Your task to perform on an android device: Open the files app Image 0: 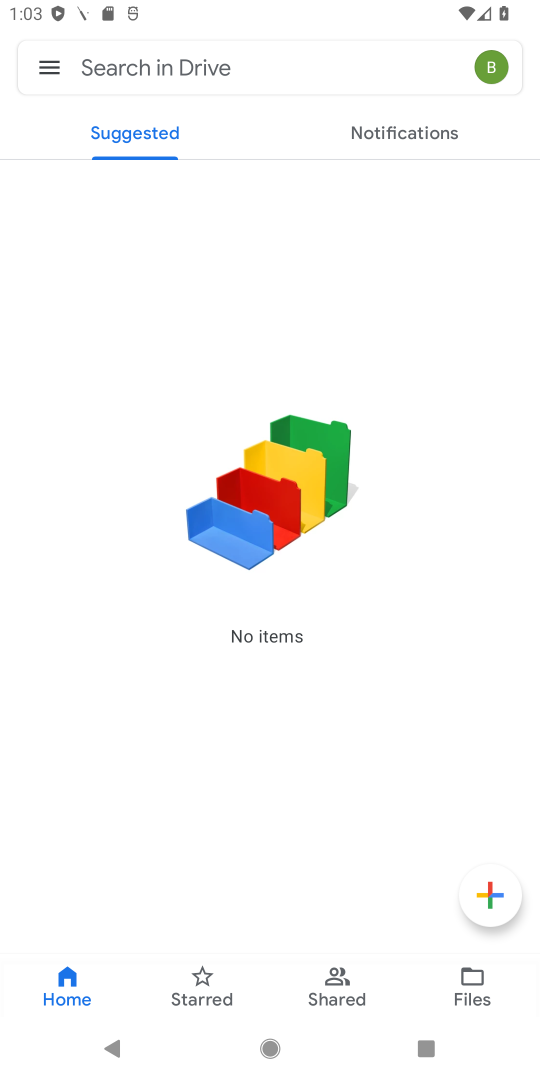
Step 0: press home button
Your task to perform on an android device: Open the files app Image 1: 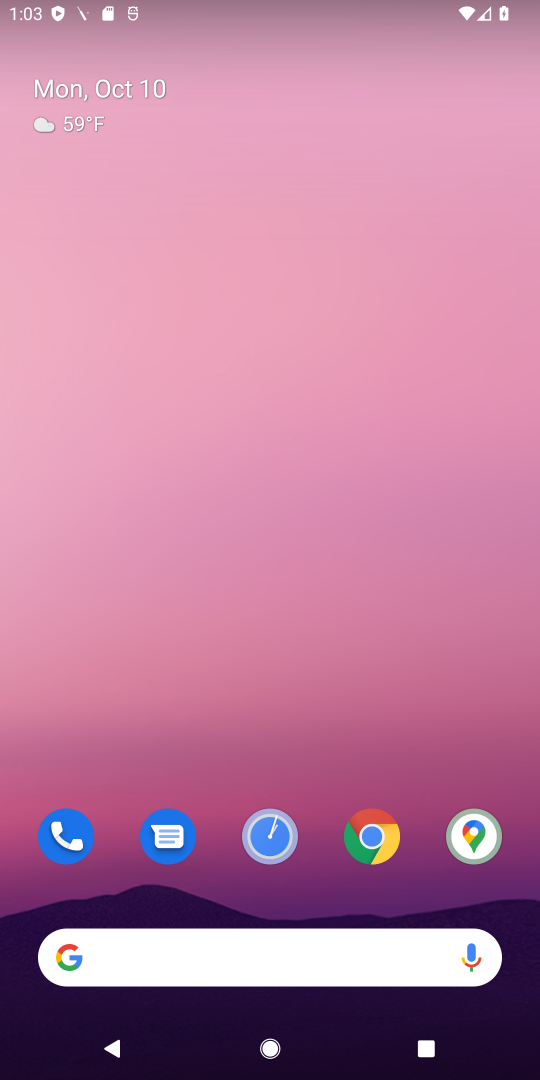
Step 1: press home button
Your task to perform on an android device: Open the files app Image 2: 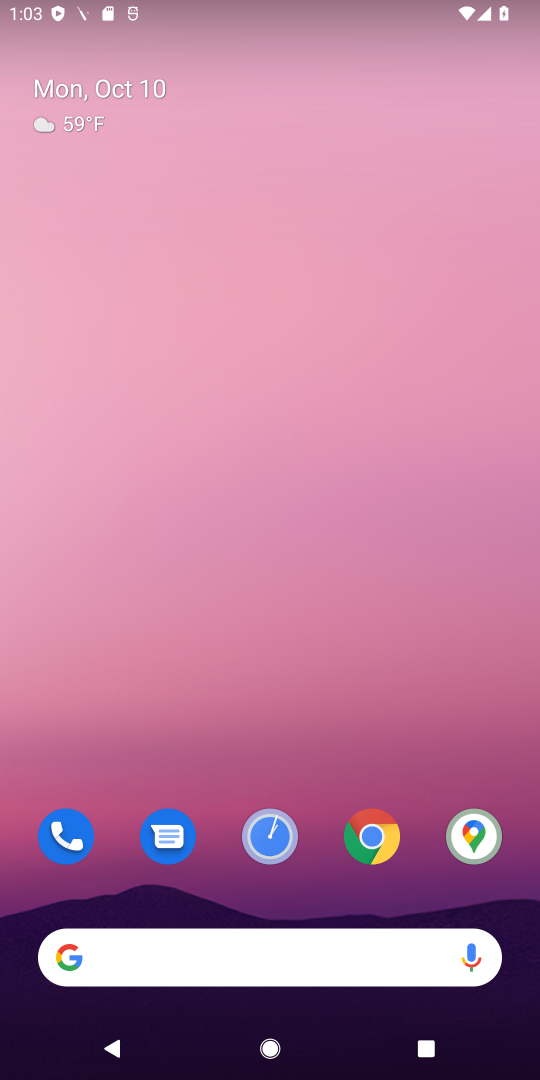
Step 2: drag from (263, 748) to (381, 242)
Your task to perform on an android device: Open the files app Image 3: 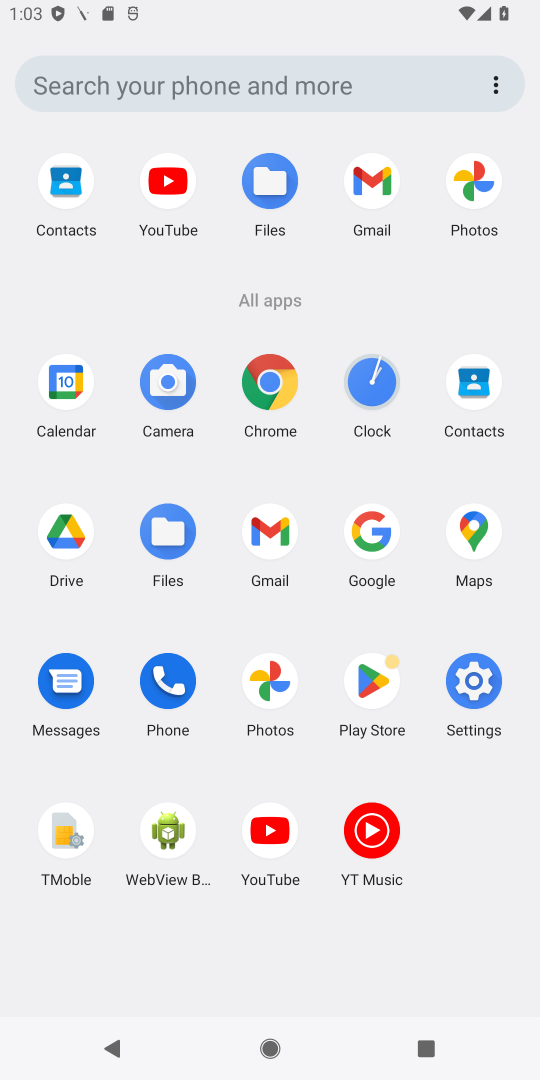
Step 3: click (164, 540)
Your task to perform on an android device: Open the files app Image 4: 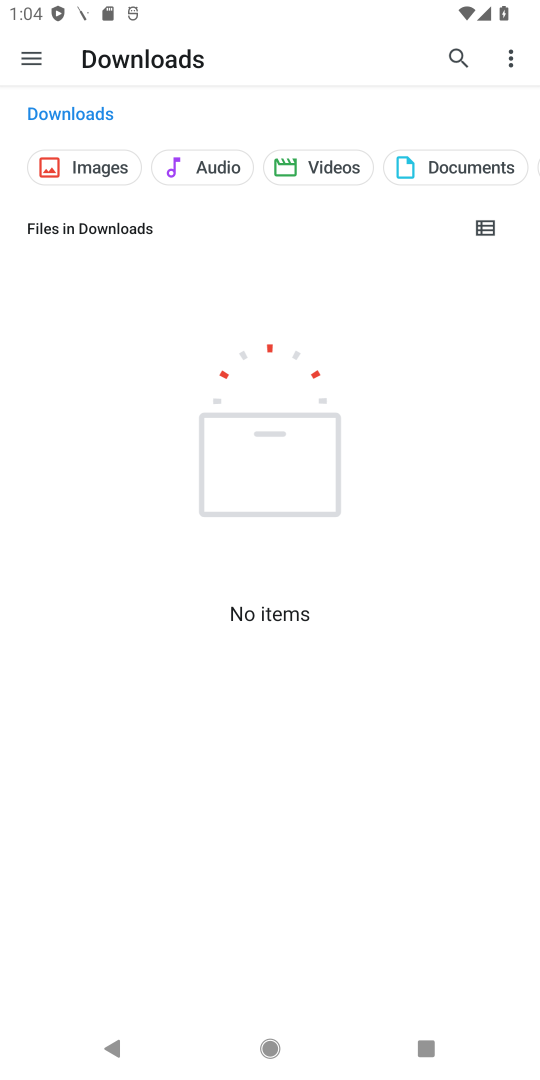
Step 4: task complete